Your task to perform on an android device: Play the last video I watched on Youtube Image 0: 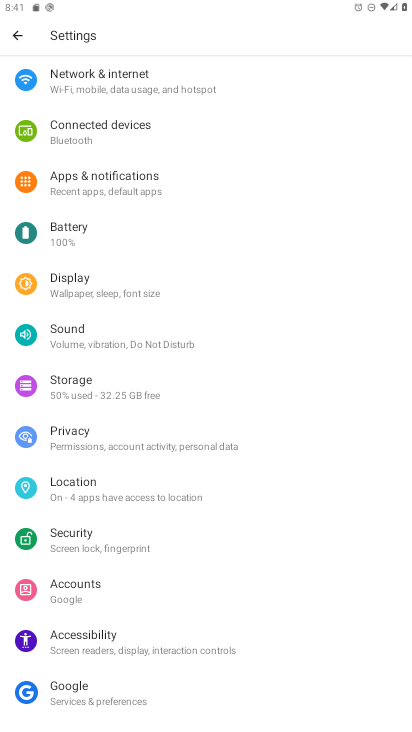
Step 0: press home button
Your task to perform on an android device: Play the last video I watched on Youtube Image 1: 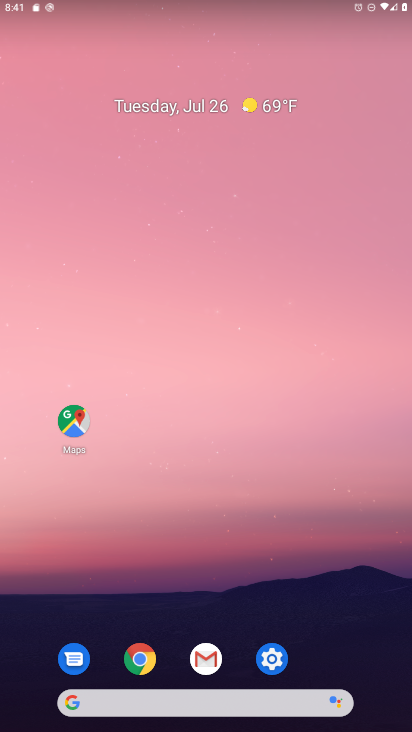
Step 1: drag from (240, 717) to (353, 56)
Your task to perform on an android device: Play the last video I watched on Youtube Image 2: 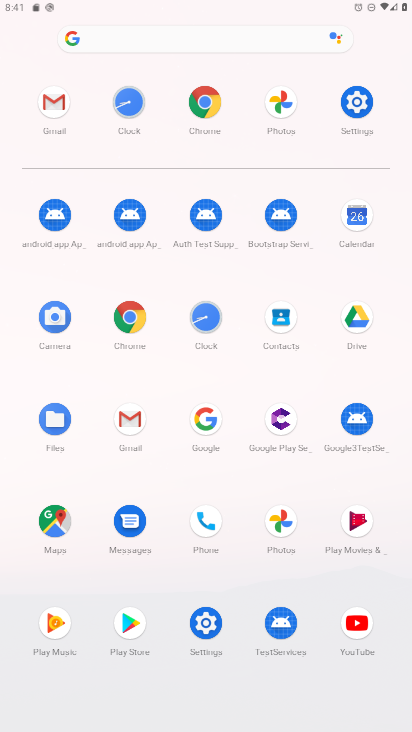
Step 2: click (360, 627)
Your task to perform on an android device: Play the last video I watched on Youtube Image 3: 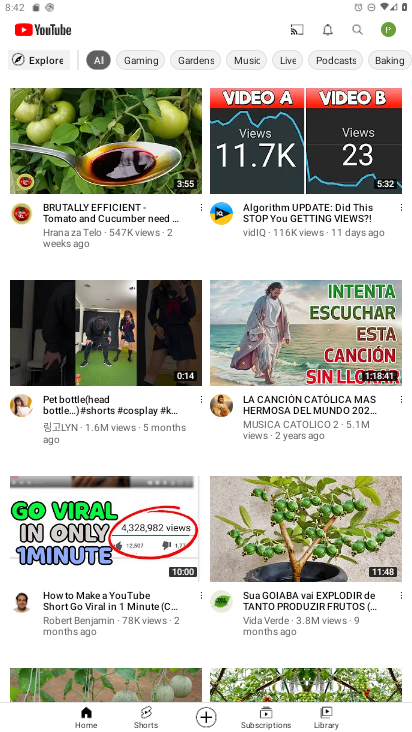
Step 3: click (320, 714)
Your task to perform on an android device: Play the last video I watched on Youtube Image 4: 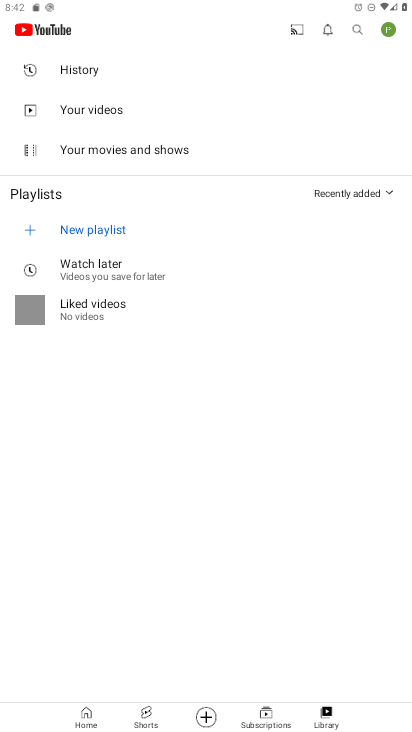
Step 4: click (96, 69)
Your task to perform on an android device: Play the last video I watched on Youtube Image 5: 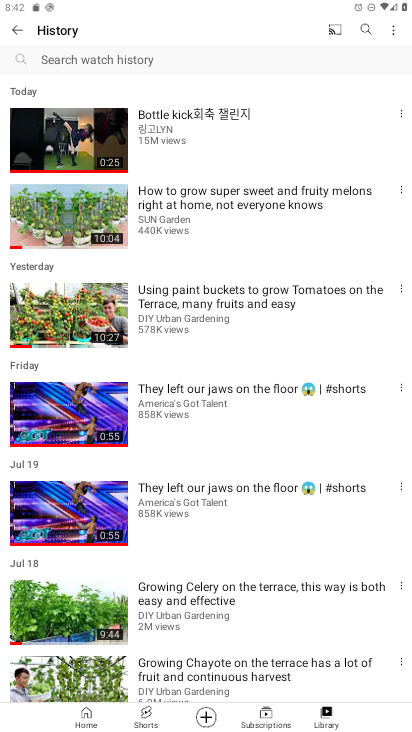
Step 5: click (88, 138)
Your task to perform on an android device: Play the last video I watched on Youtube Image 6: 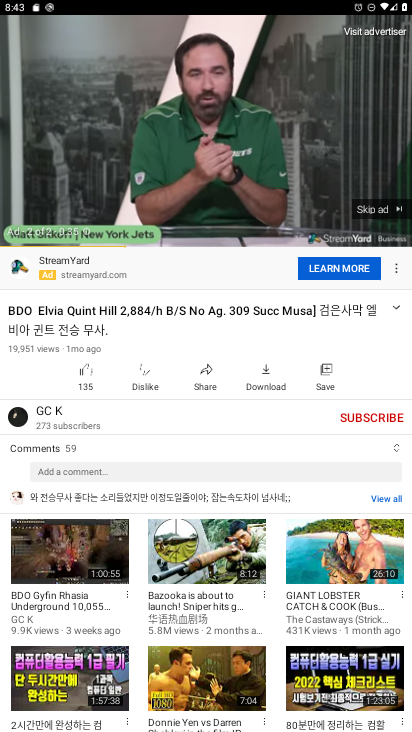
Step 6: task complete